Your task to perform on an android device: toggle data saver in the chrome app Image 0: 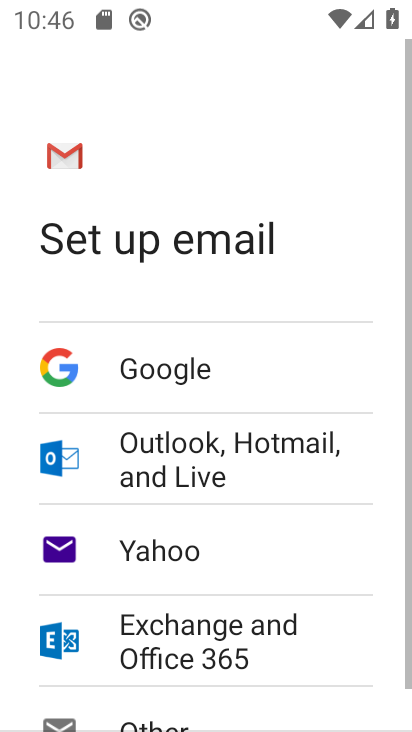
Step 0: press home button
Your task to perform on an android device: toggle data saver in the chrome app Image 1: 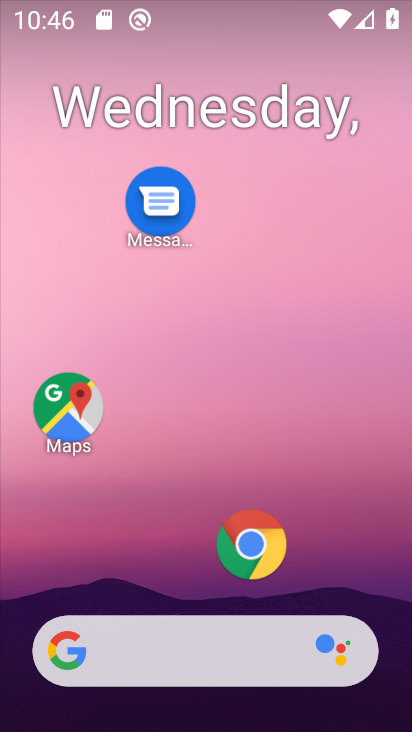
Step 1: click (241, 546)
Your task to perform on an android device: toggle data saver in the chrome app Image 2: 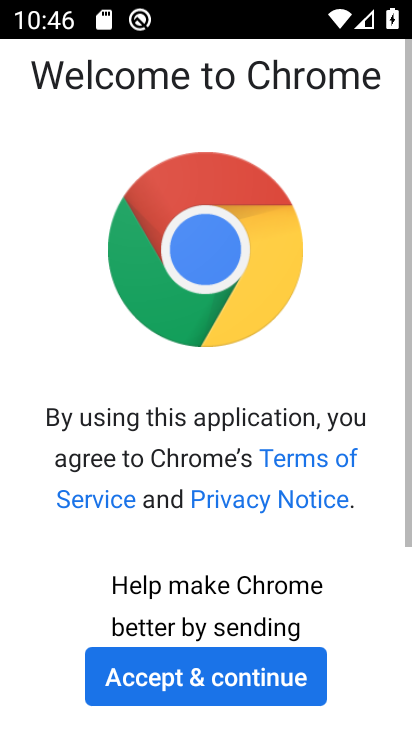
Step 2: click (252, 687)
Your task to perform on an android device: toggle data saver in the chrome app Image 3: 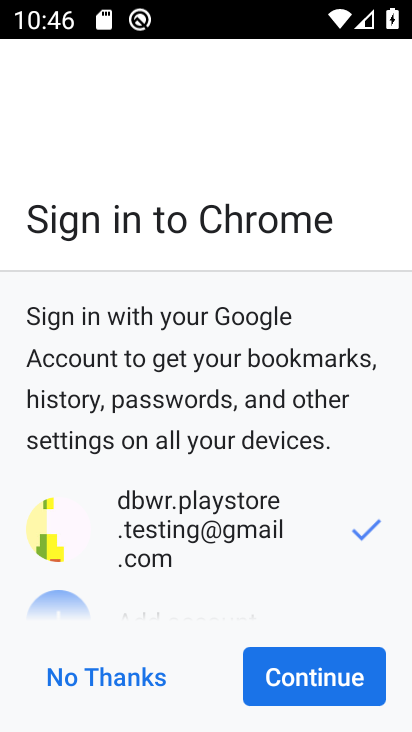
Step 3: click (288, 654)
Your task to perform on an android device: toggle data saver in the chrome app Image 4: 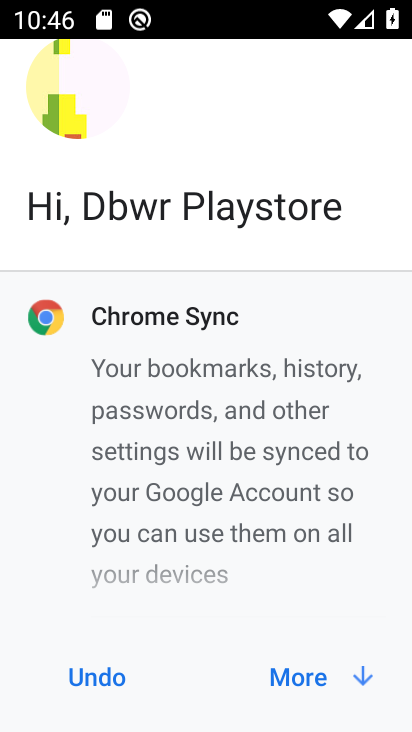
Step 4: click (286, 663)
Your task to perform on an android device: toggle data saver in the chrome app Image 5: 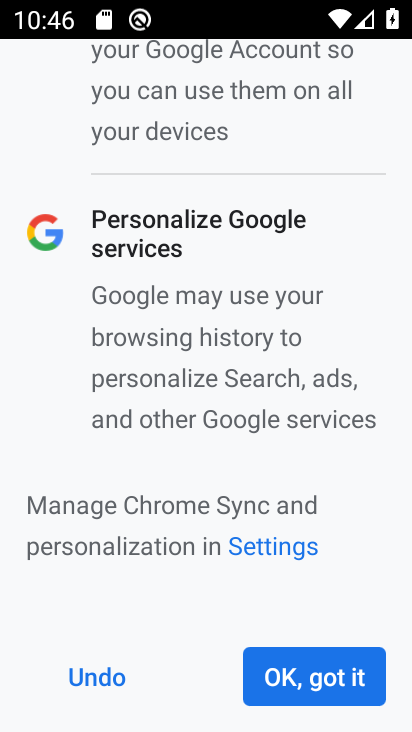
Step 5: click (286, 663)
Your task to perform on an android device: toggle data saver in the chrome app Image 6: 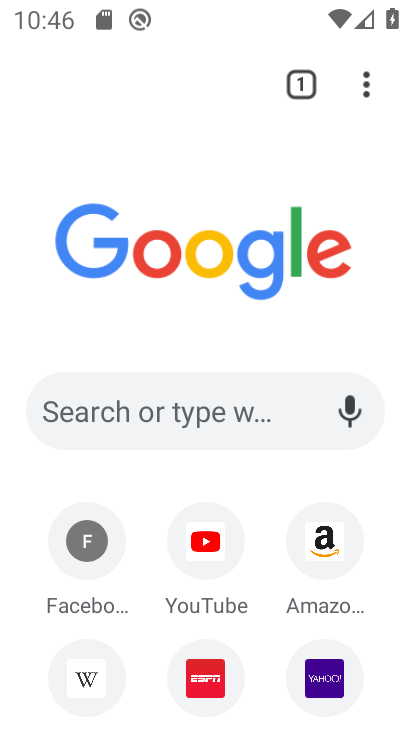
Step 6: click (368, 85)
Your task to perform on an android device: toggle data saver in the chrome app Image 7: 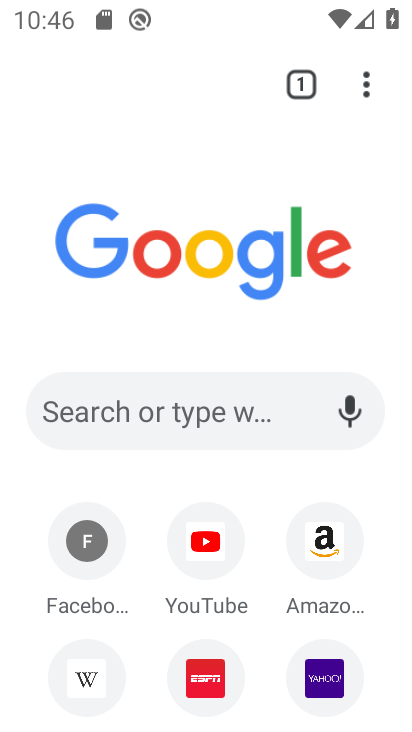
Step 7: drag from (362, 89) to (144, 606)
Your task to perform on an android device: toggle data saver in the chrome app Image 8: 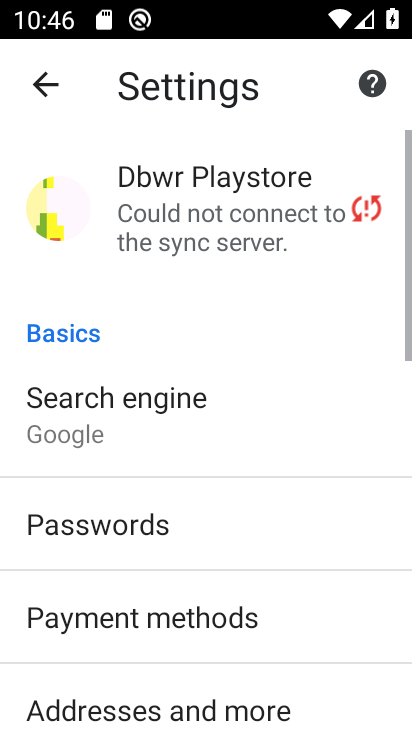
Step 8: drag from (188, 491) to (221, 181)
Your task to perform on an android device: toggle data saver in the chrome app Image 9: 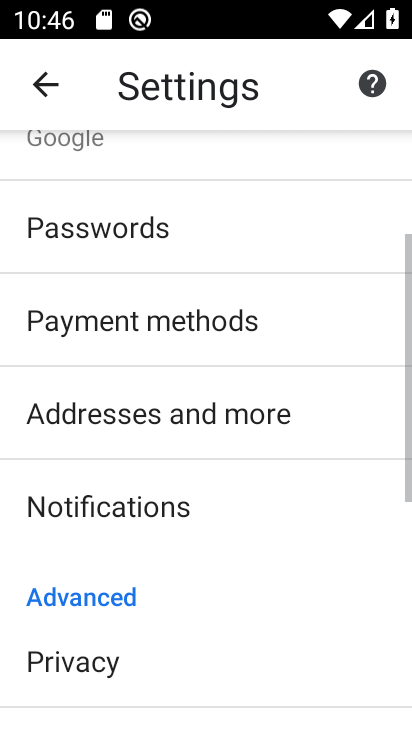
Step 9: drag from (222, 445) to (247, 205)
Your task to perform on an android device: toggle data saver in the chrome app Image 10: 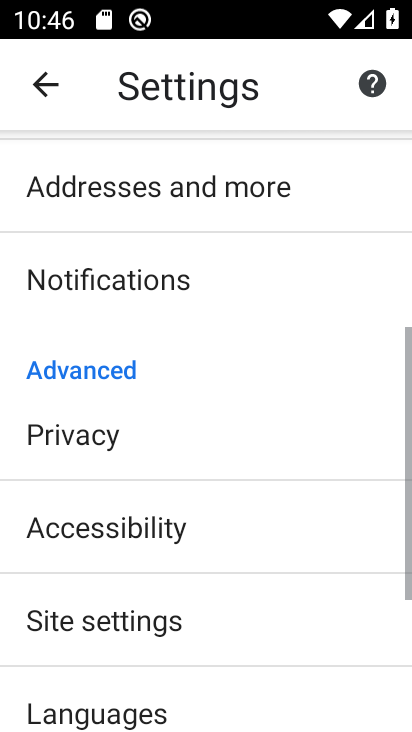
Step 10: drag from (237, 597) to (265, 292)
Your task to perform on an android device: toggle data saver in the chrome app Image 11: 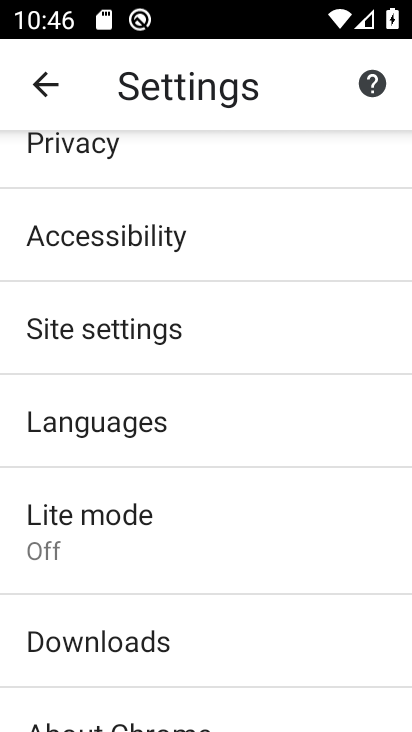
Step 11: click (117, 519)
Your task to perform on an android device: toggle data saver in the chrome app Image 12: 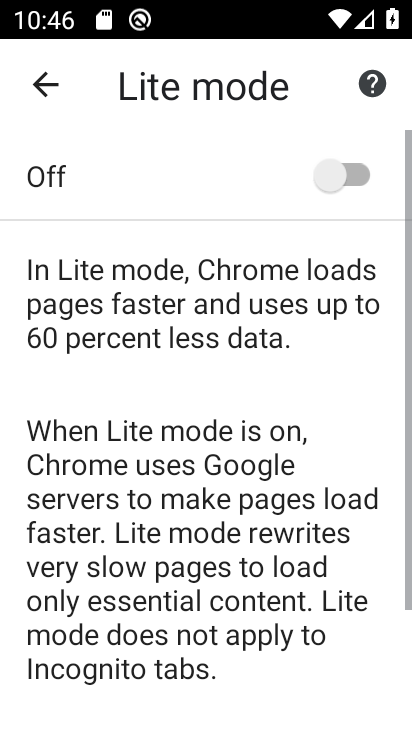
Step 12: click (359, 175)
Your task to perform on an android device: toggle data saver in the chrome app Image 13: 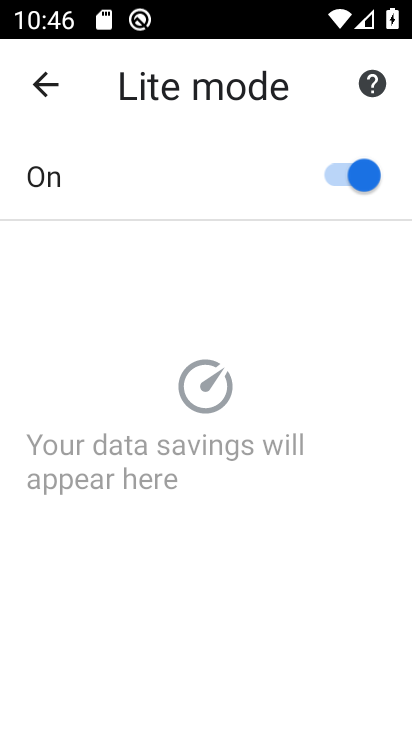
Step 13: task complete